Your task to perform on an android device: Open the calendar and show me this week's events? Image 0: 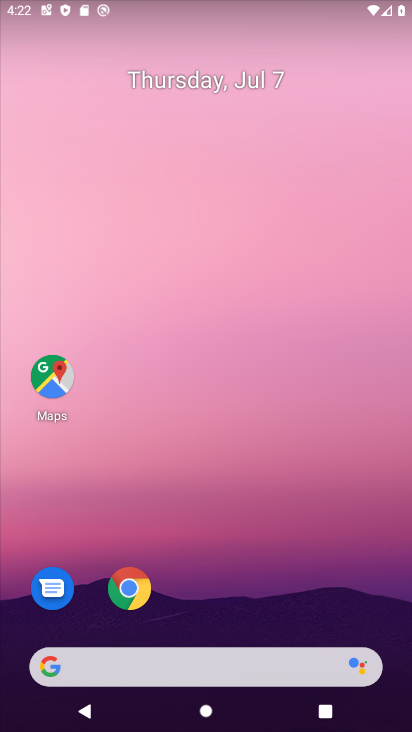
Step 0: drag from (269, 648) to (308, 1)
Your task to perform on an android device: Open the calendar and show me this week's events? Image 1: 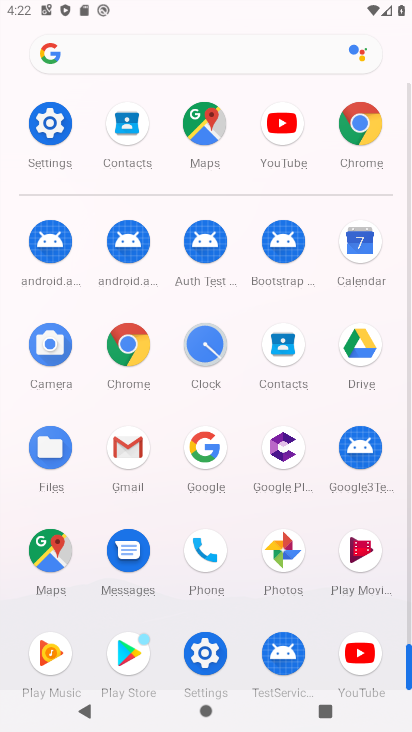
Step 1: click (364, 231)
Your task to perform on an android device: Open the calendar and show me this week's events? Image 2: 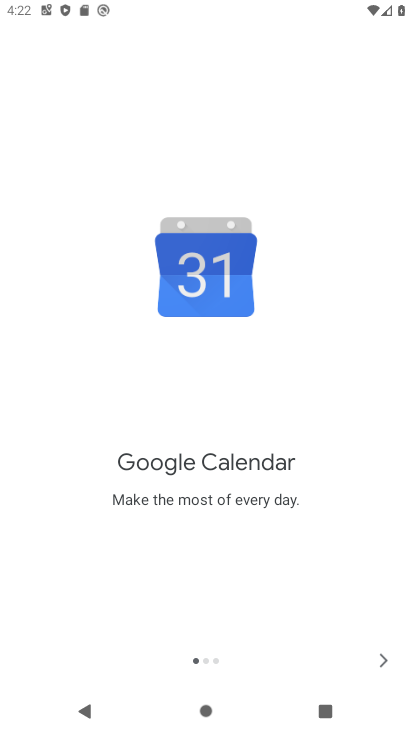
Step 2: click (381, 667)
Your task to perform on an android device: Open the calendar and show me this week's events? Image 3: 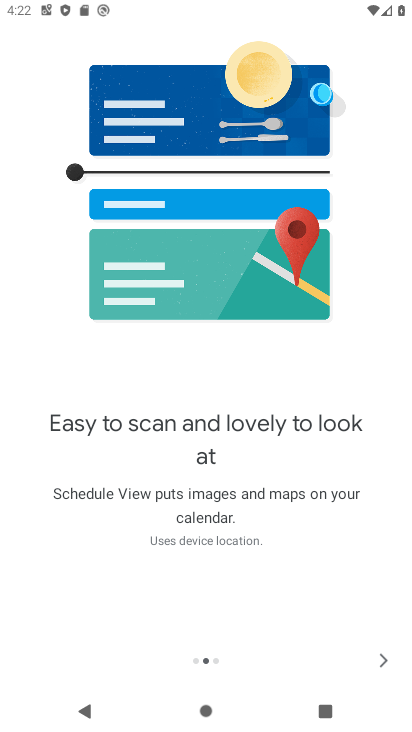
Step 3: click (381, 667)
Your task to perform on an android device: Open the calendar and show me this week's events? Image 4: 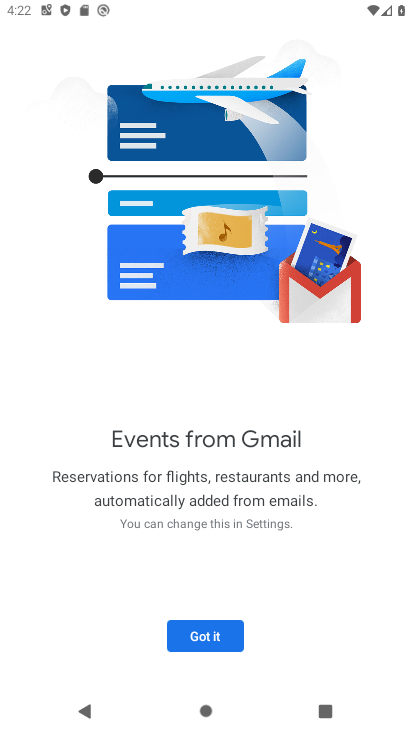
Step 4: click (229, 639)
Your task to perform on an android device: Open the calendar and show me this week's events? Image 5: 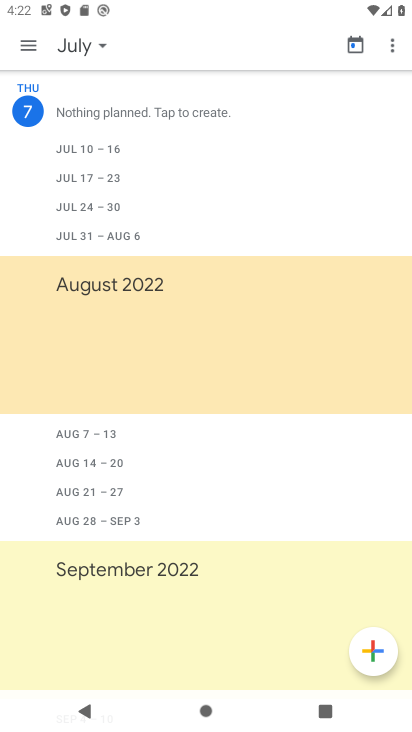
Step 5: click (100, 43)
Your task to perform on an android device: Open the calendar and show me this week's events? Image 6: 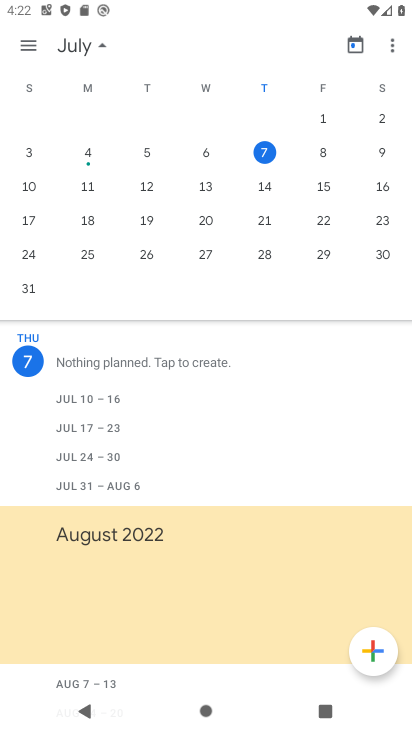
Step 6: click (38, 43)
Your task to perform on an android device: Open the calendar and show me this week's events? Image 7: 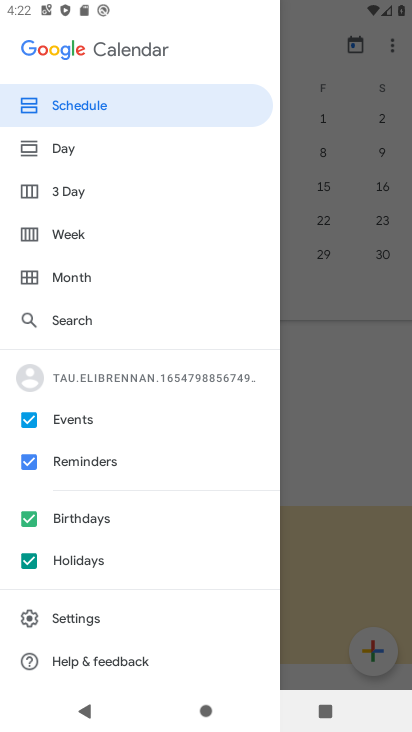
Step 7: click (90, 234)
Your task to perform on an android device: Open the calendar and show me this week's events? Image 8: 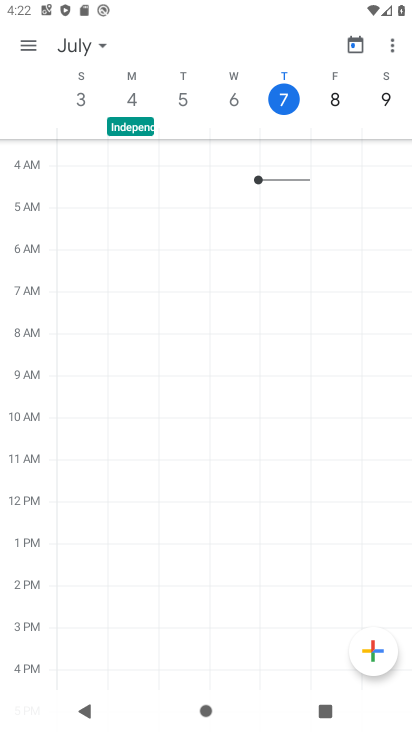
Step 8: task complete